Your task to perform on an android device: turn smart compose on in the gmail app Image 0: 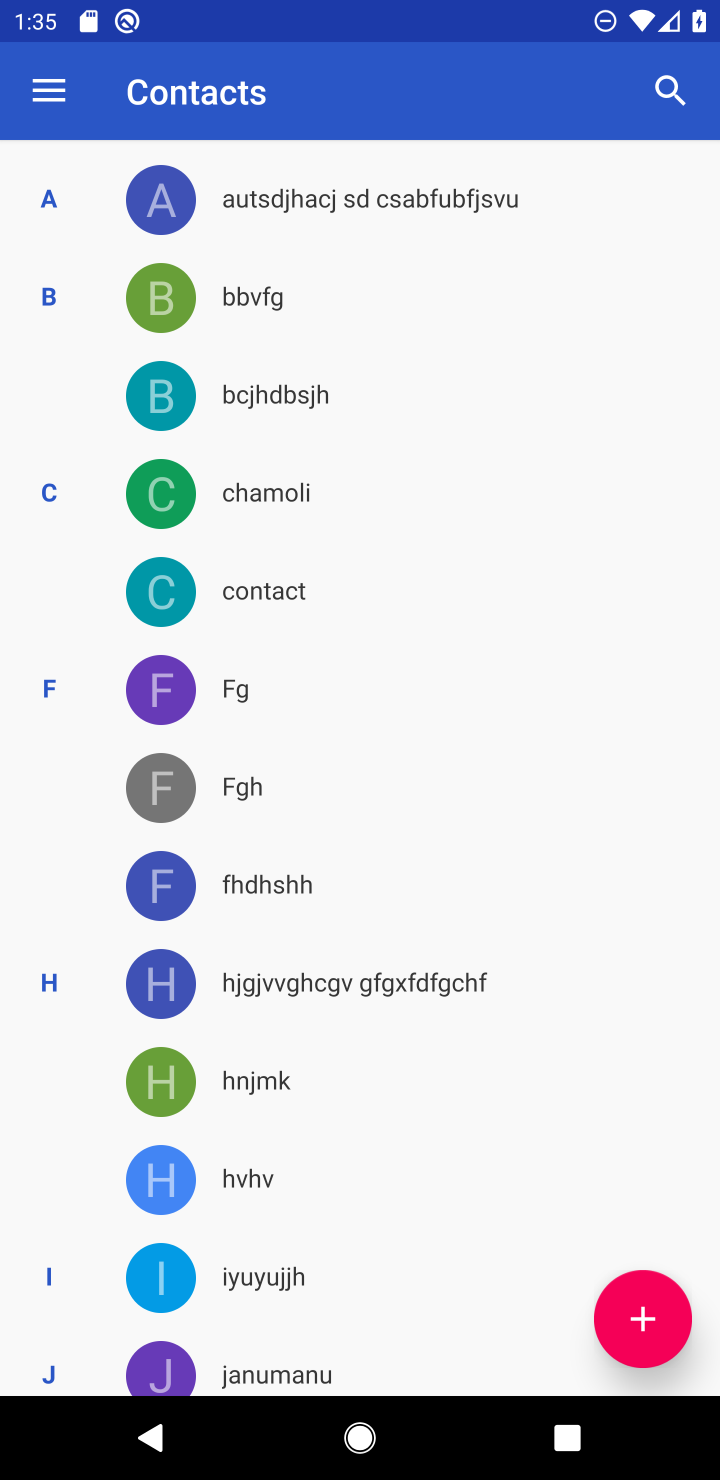
Step 0: press home button
Your task to perform on an android device: turn smart compose on in the gmail app Image 1: 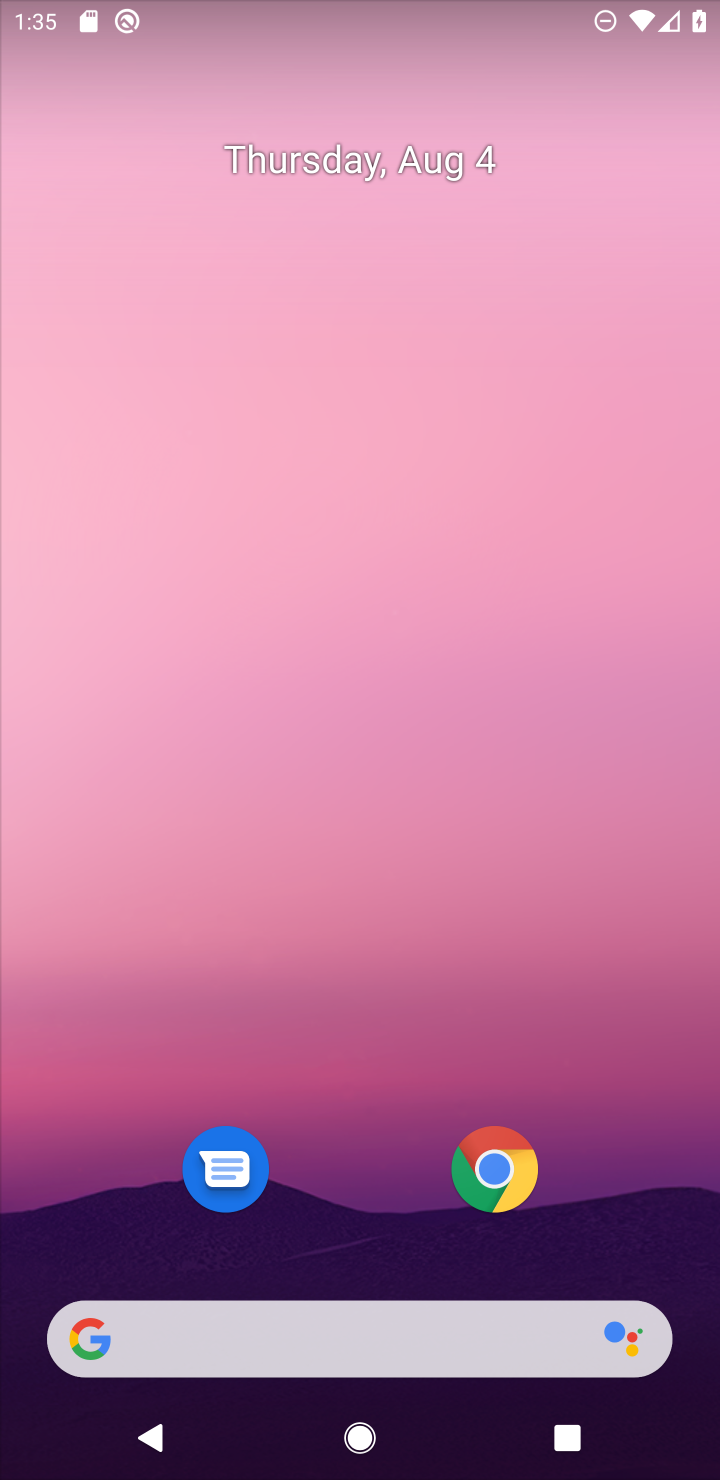
Step 1: drag from (386, 1220) to (361, 2)
Your task to perform on an android device: turn smart compose on in the gmail app Image 2: 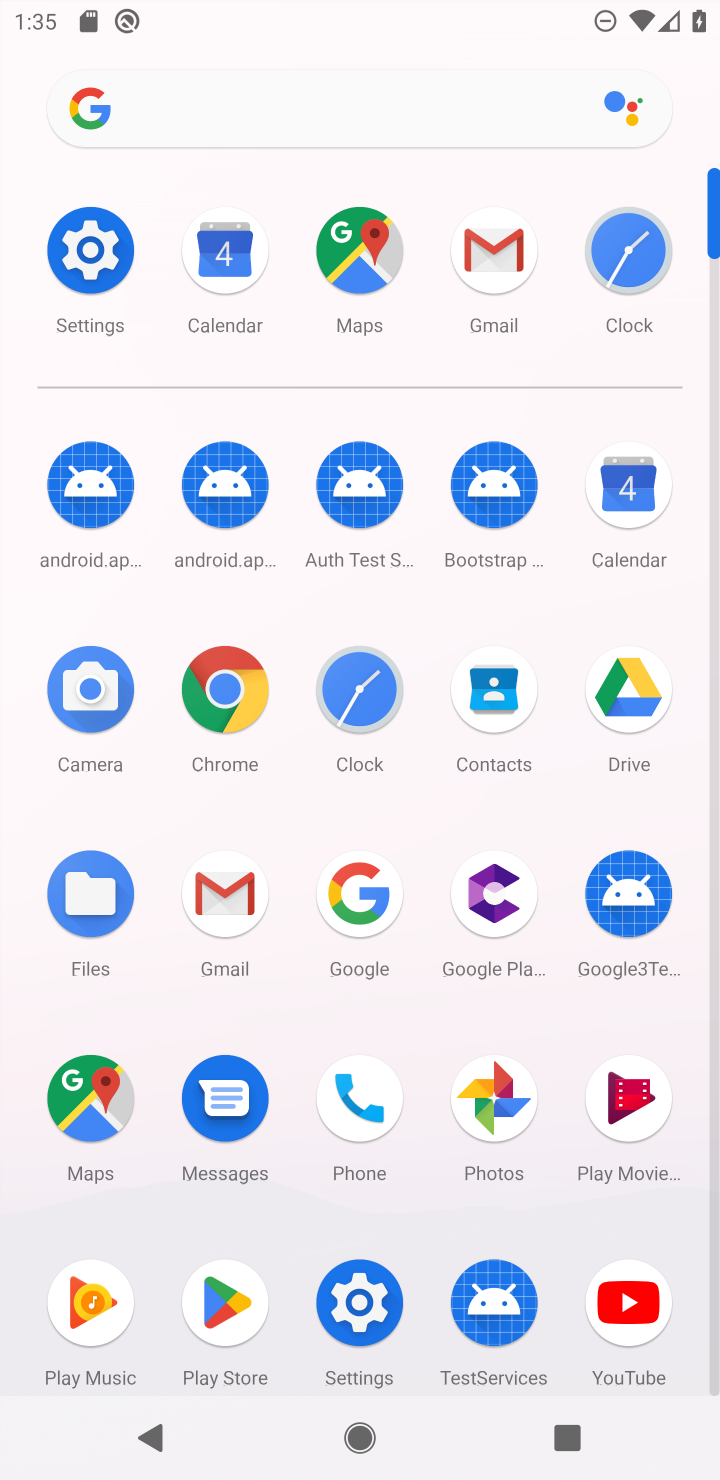
Step 2: click (485, 257)
Your task to perform on an android device: turn smart compose on in the gmail app Image 3: 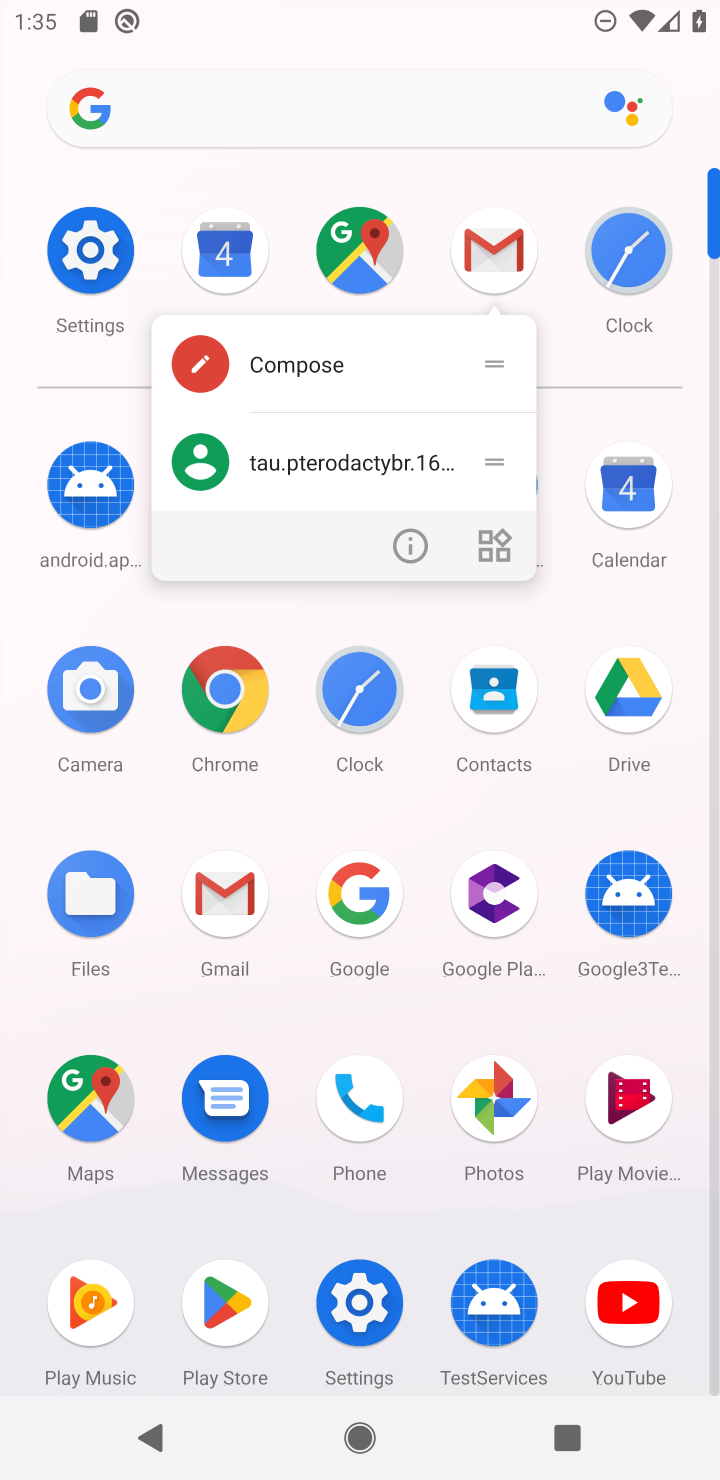
Step 3: click (488, 248)
Your task to perform on an android device: turn smart compose on in the gmail app Image 4: 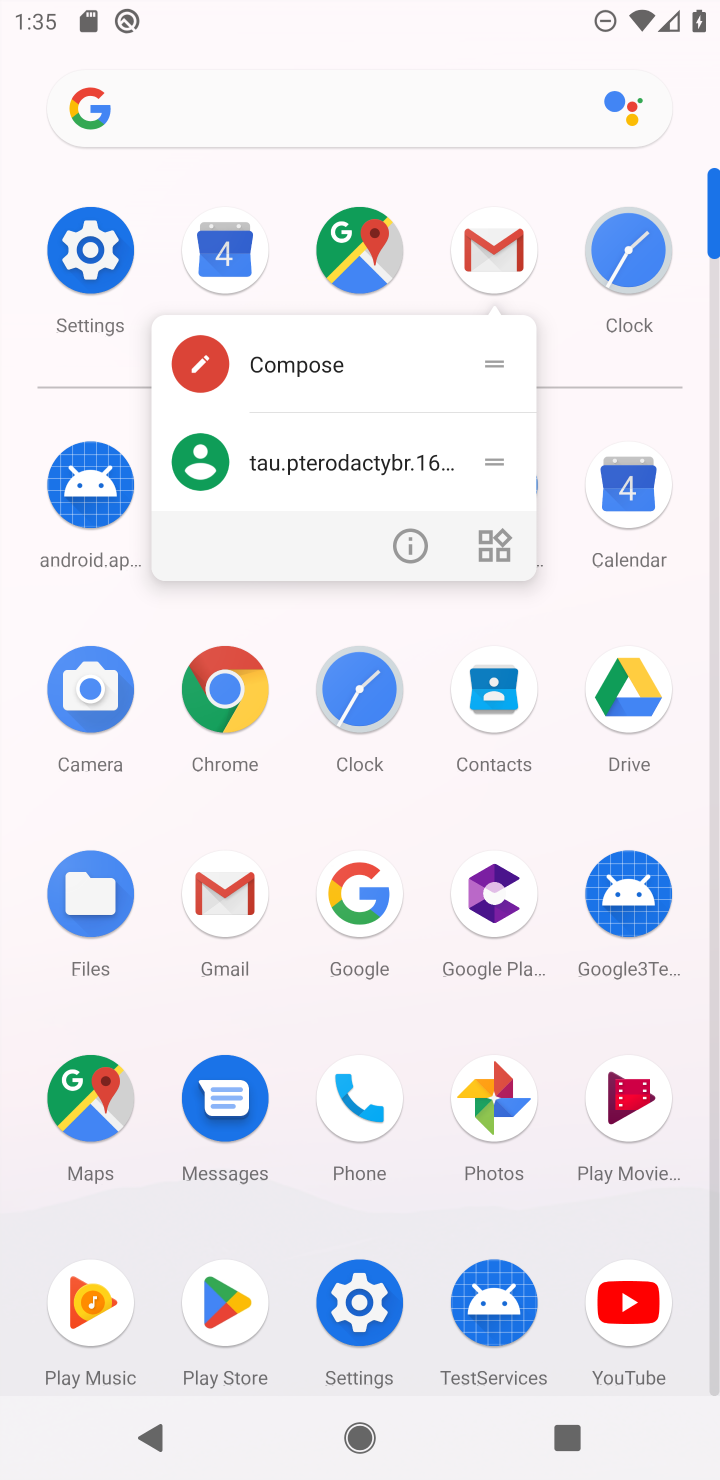
Step 4: click (486, 248)
Your task to perform on an android device: turn smart compose on in the gmail app Image 5: 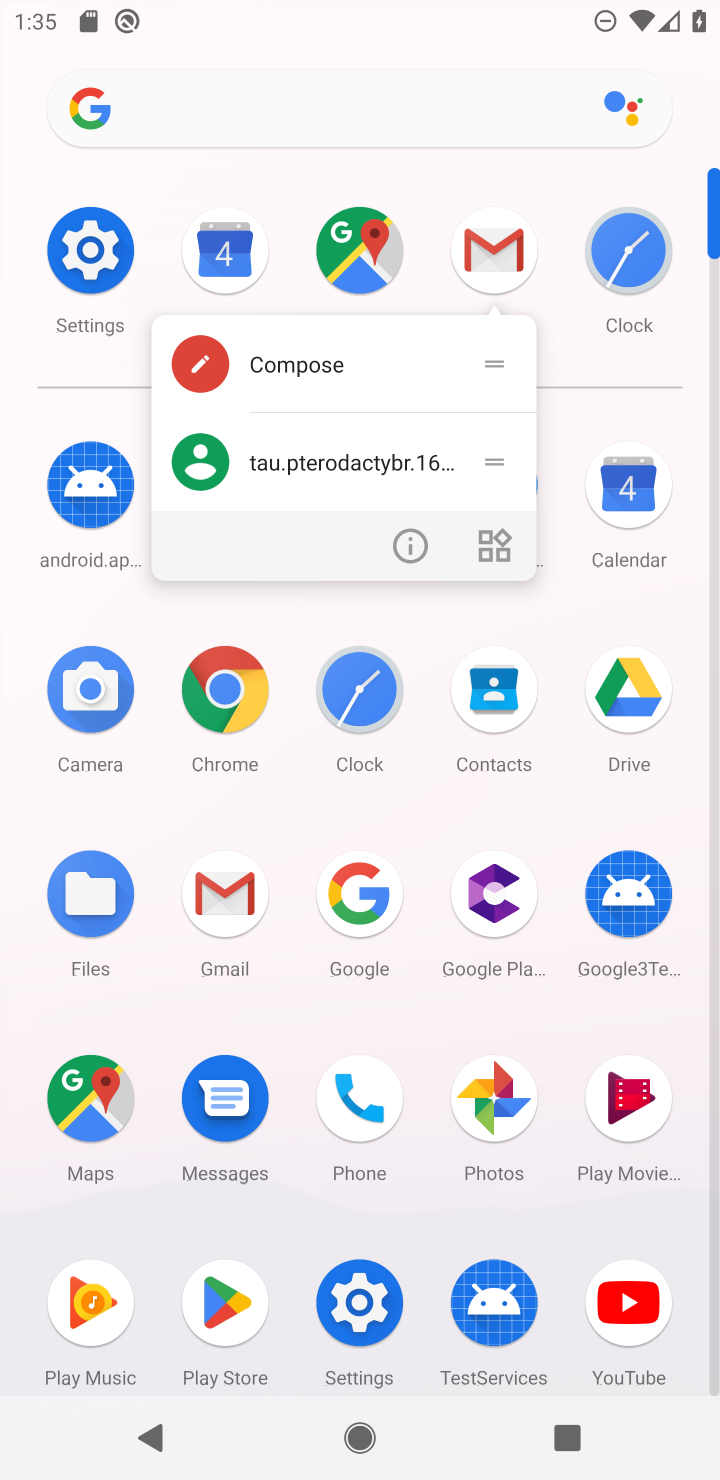
Step 5: click (493, 257)
Your task to perform on an android device: turn smart compose on in the gmail app Image 6: 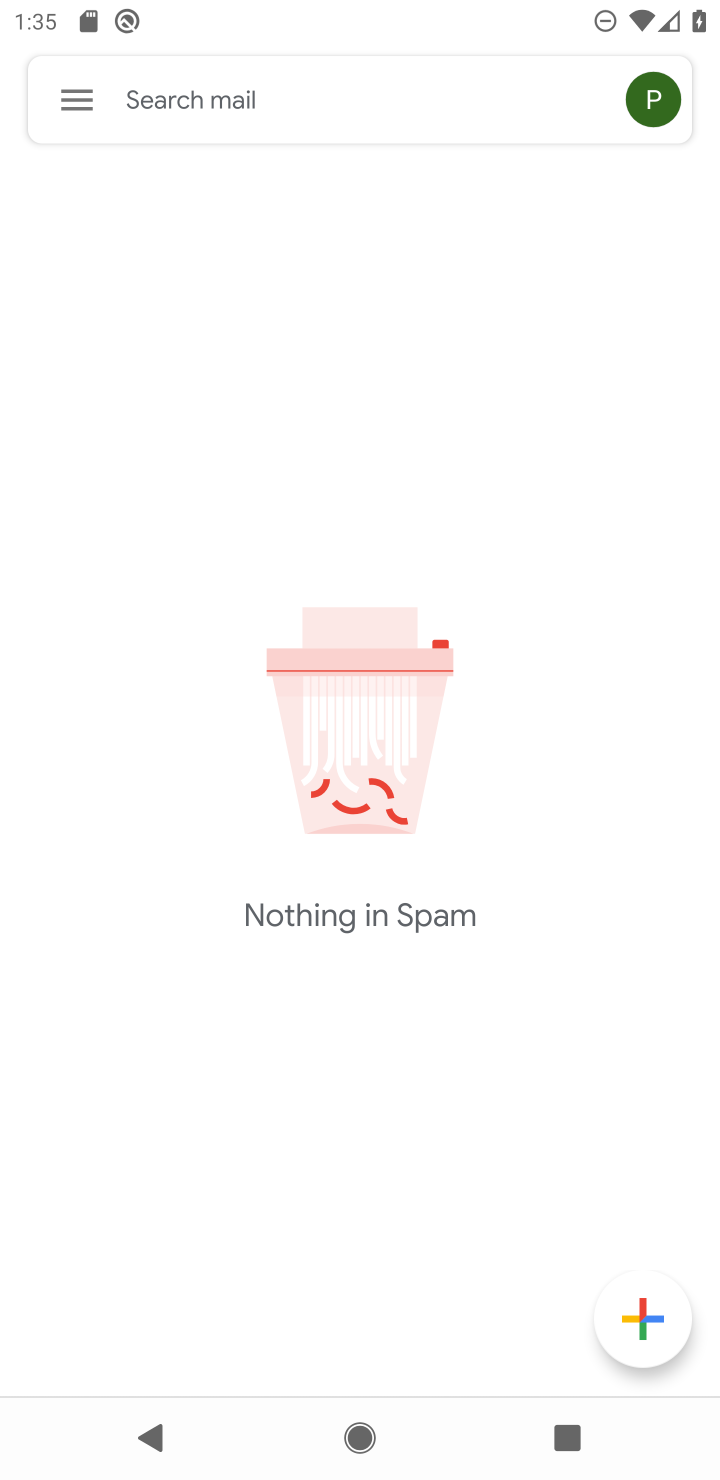
Step 6: click (77, 93)
Your task to perform on an android device: turn smart compose on in the gmail app Image 7: 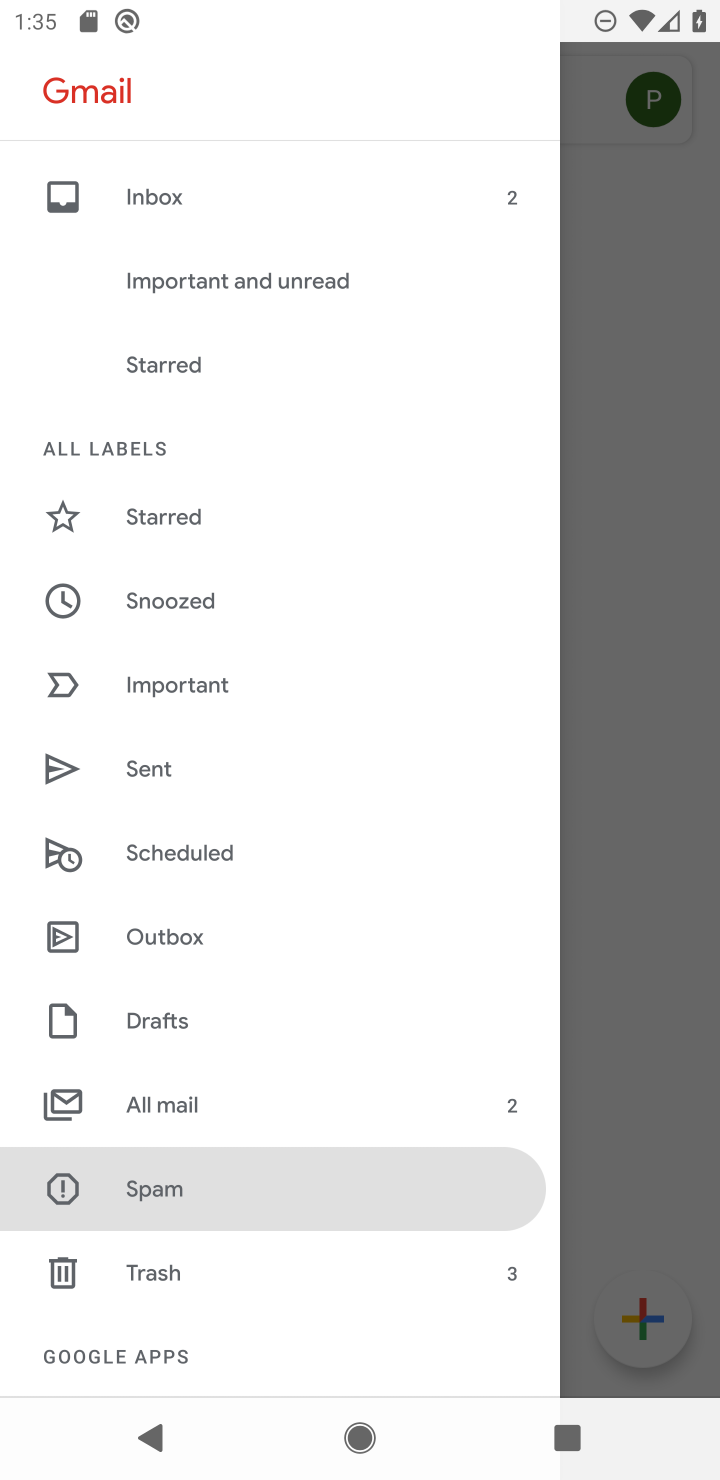
Step 7: drag from (264, 1246) to (364, 396)
Your task to perform on an android device: turn smart compose on in the gmail app Image 8: 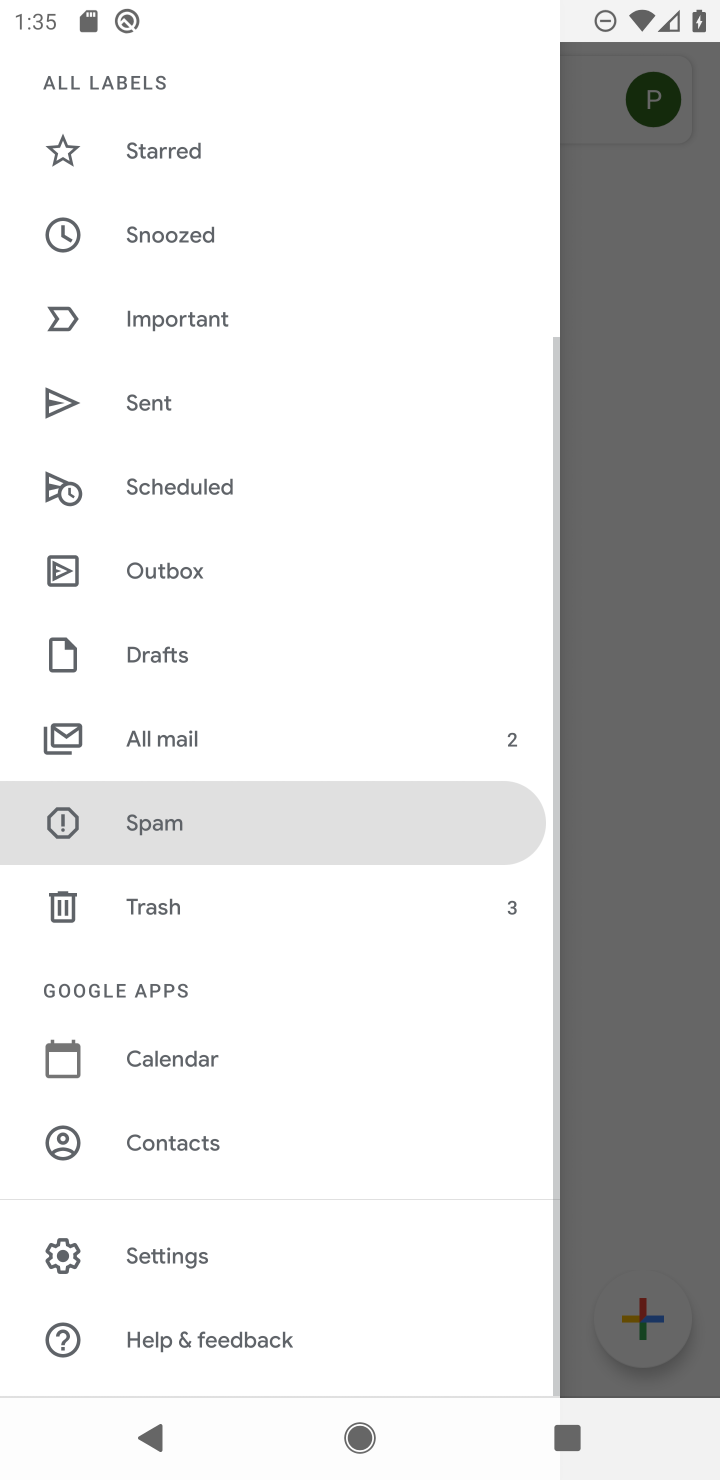
Step 8: click (182, 1262)
Your task to perform on an android device: turn smart compose on in the gmail app Image 9: 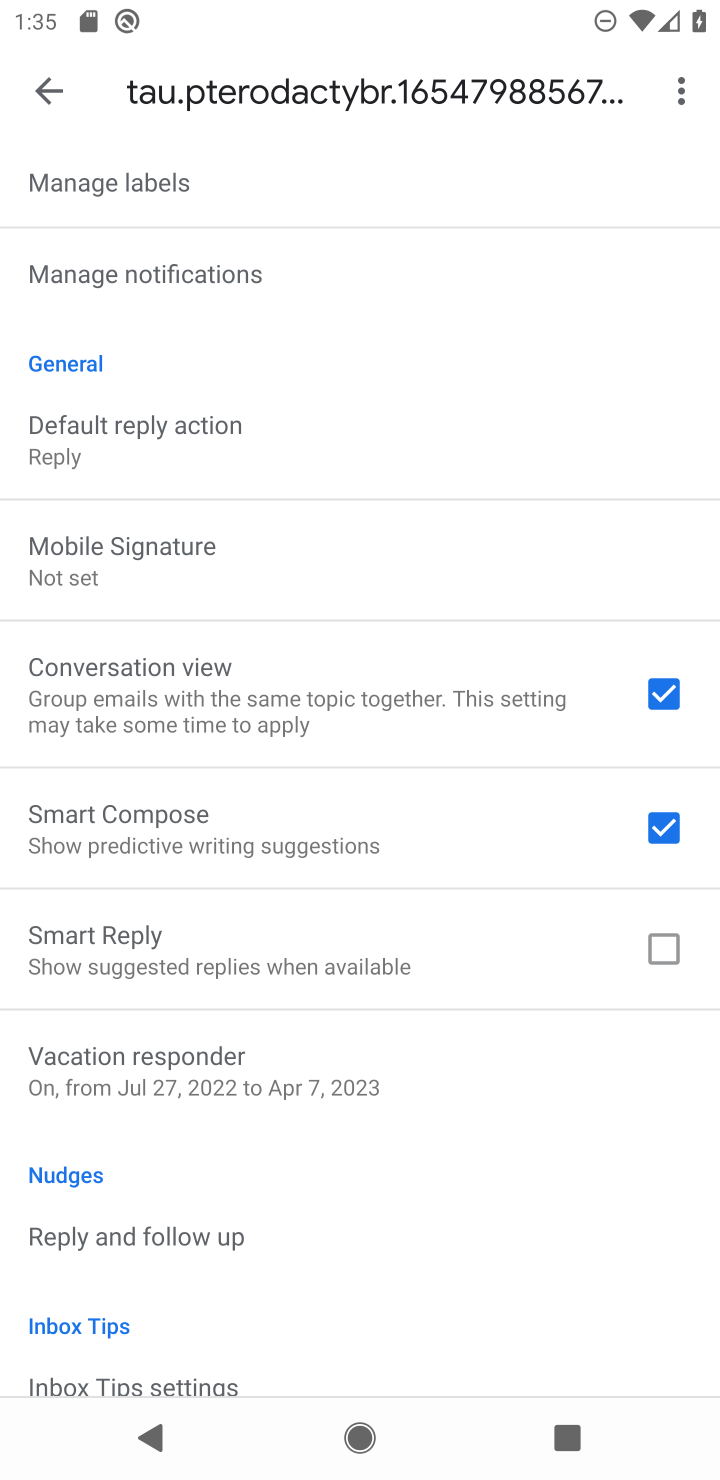
Step 9: task complete